Your task to perform on an android device: Search for Italian restaurants on Maps Image 0: 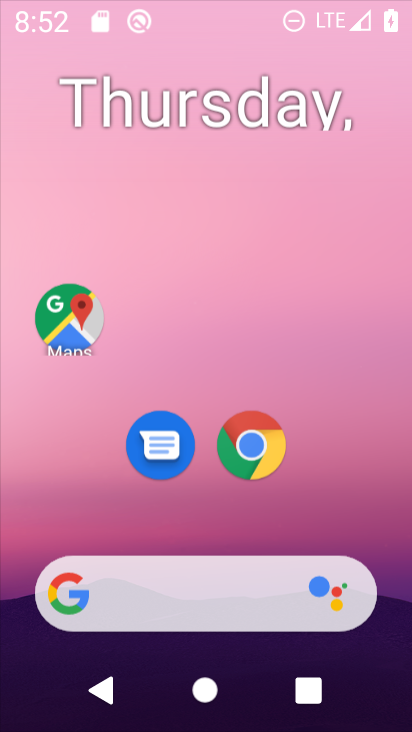
Step 0: press home button
Your task to perform on an android device: Search for Italian restaurants on Maps Image 1: 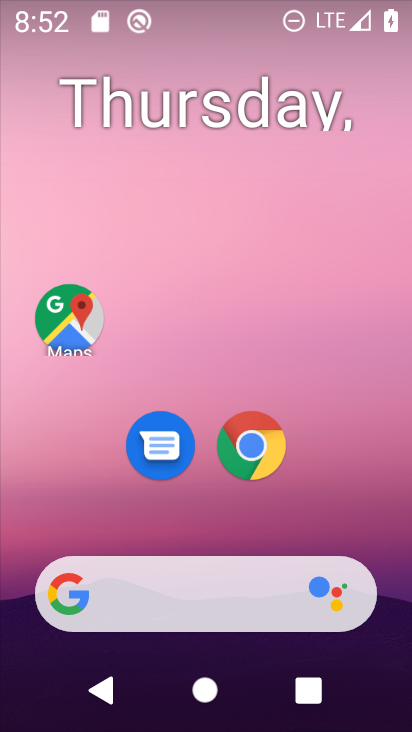
Step 1: drag from (392, 600) to (322, 51)
Your task to perform on an android device: Search for Italian restaurants on Maps Image 2: 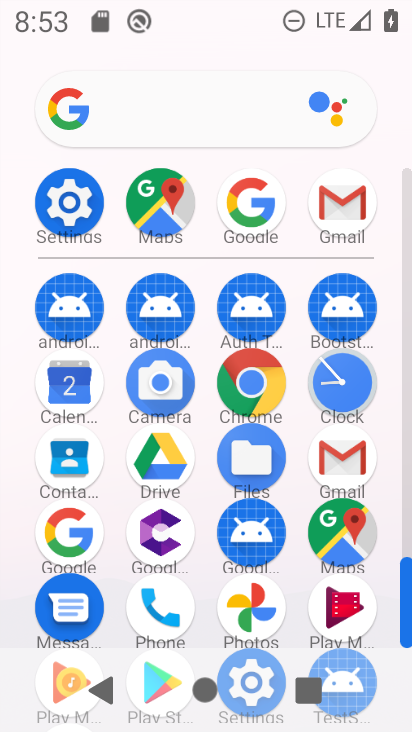
Step 2: click (370, 529)
Your task to perform on an android device: Search for Italian restaurants on Maps Image 3: 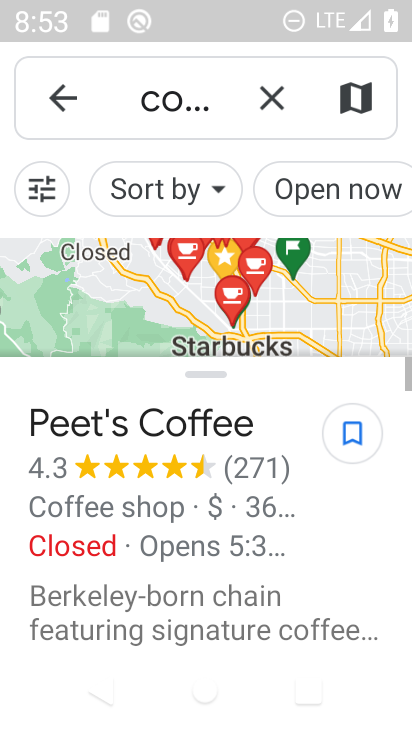
Step 3: click (273, 86)
Your task to perform on an android device: Search for Italian restaurants on Maps Image 4: 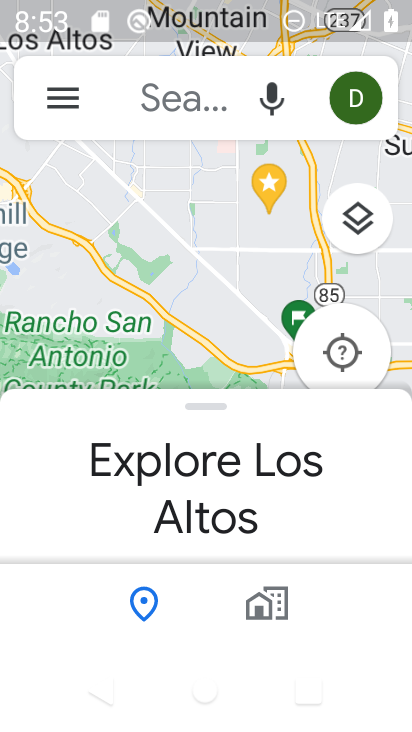
Step 4: click (161, 98)
Your task to perform on an android device: Search for Italian restaurants on Maps Image 5: 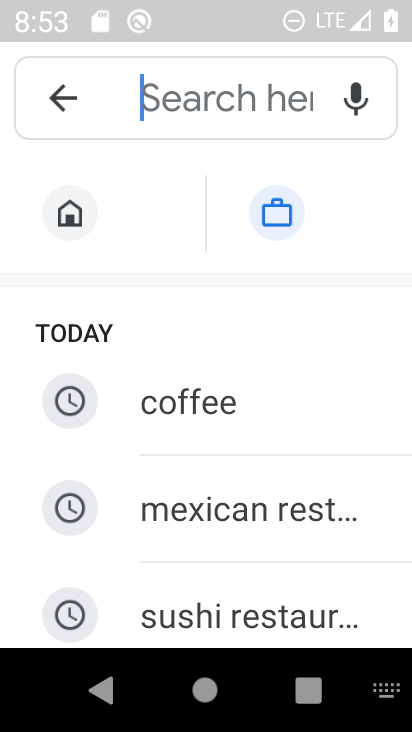
Step 5: drag from (243, 599) to (193, 169)
Your task to perform on an android device: Search for Italian restaurants on Maps Image 6: 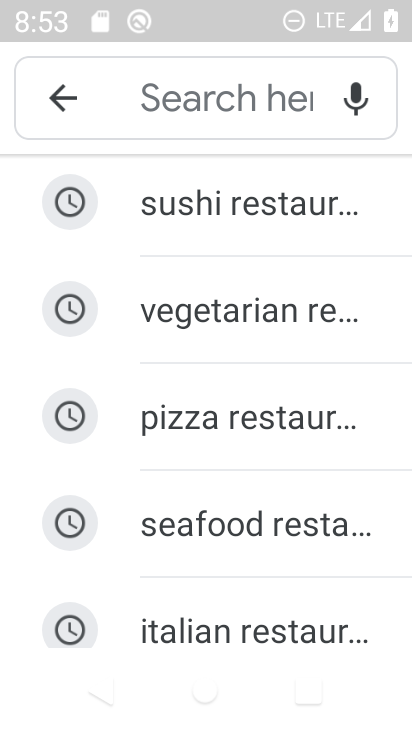
Step 6: click (217, 622)
Your task to perform on an android device: Search for Italian restaurants on Maps Image 7: 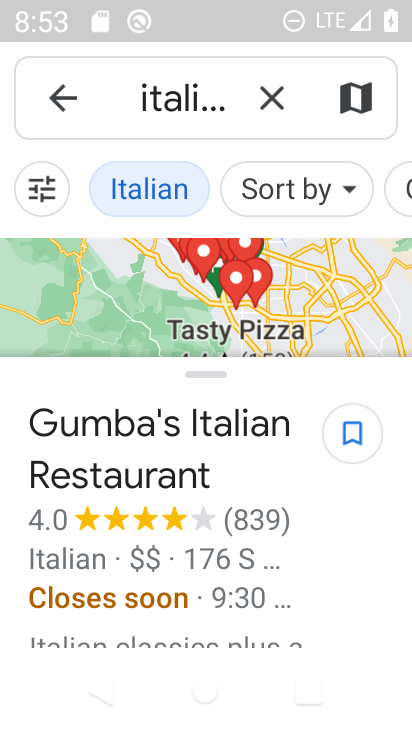
Step 7: task complete